Your task to perform on an android device: Open internet settings Image 0: 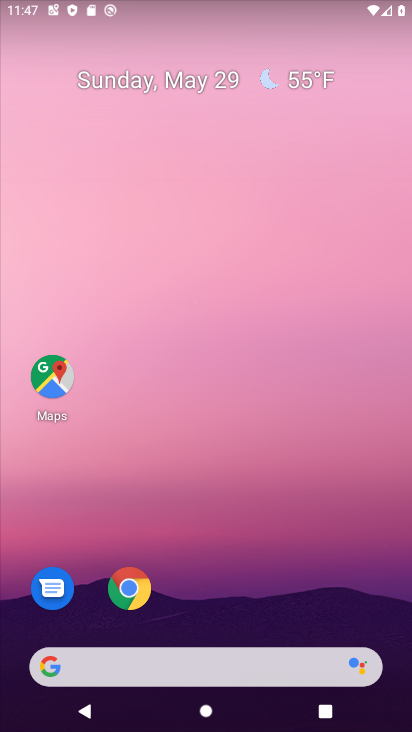
Step 0: drag from (263, 553) to (324, 40)
Your task to perform on an android device: Open internet settings Image 1: 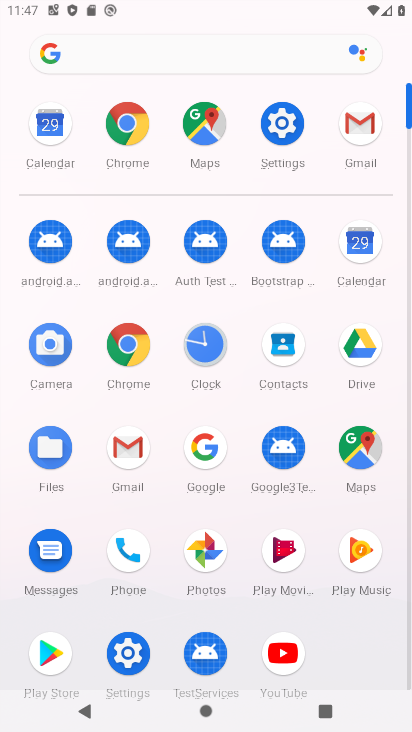
Step 1: click (275, 137)
Your task to perform on an android device: Open internet settings Image 2: 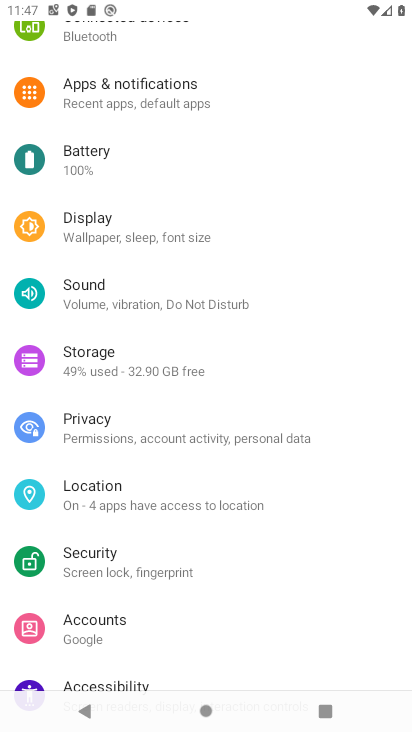
Step 2: drag from (307, 131) to (309, 730)
Your task to perform on an android device: Open internet settings Image 3: 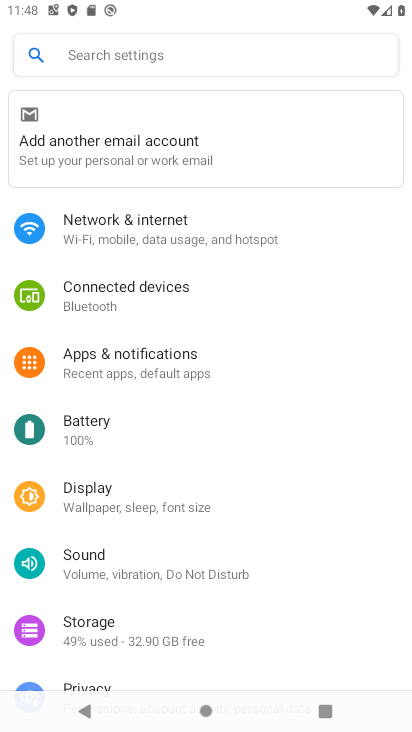
Step 3: click (153, 219)
Your task to perform on an android device: Open internet settings Image 4: 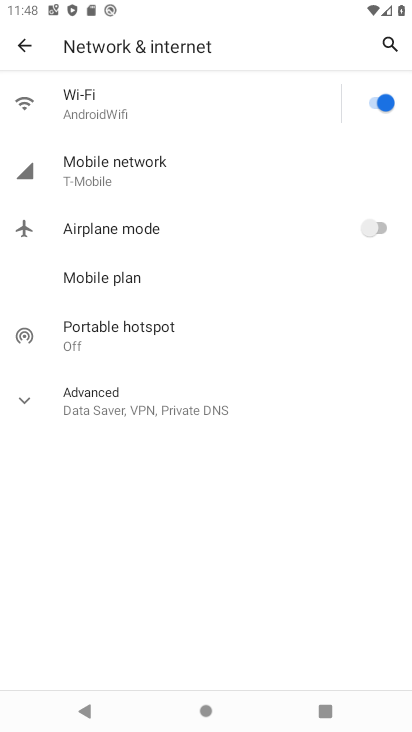
Step 4: task complete